Your task to perform on an android device: check the backup settings in the google photos Image 0: 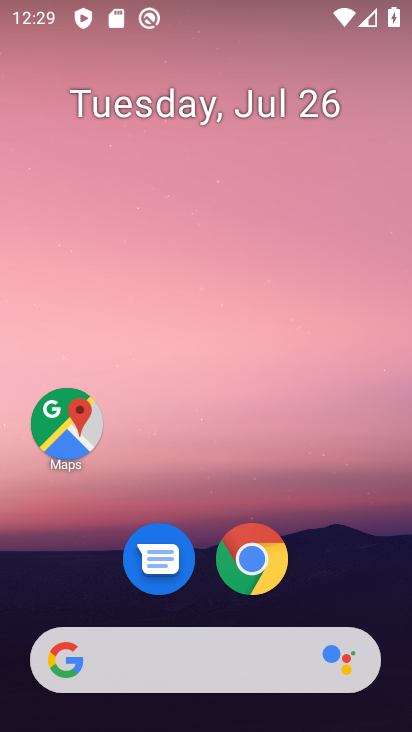
Step 0: drag from (103, 570) to (221, 77)
Your task to perform on an android device: check the backup settings in the google photos Image 1: 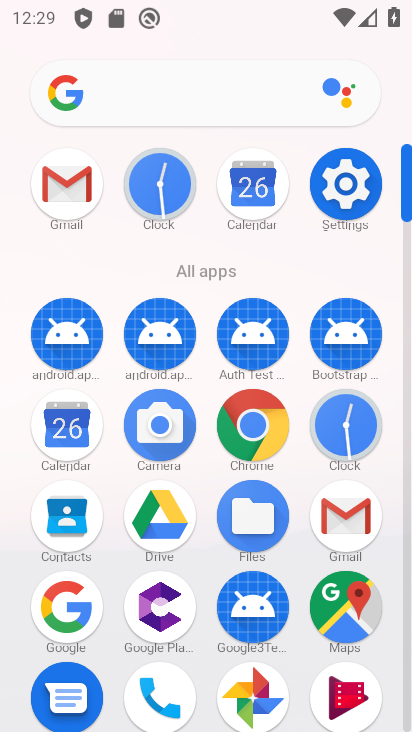
Step 1: click (261, 715)
Your task to perform on an android device: check the backup settings in the google photos Image 2: 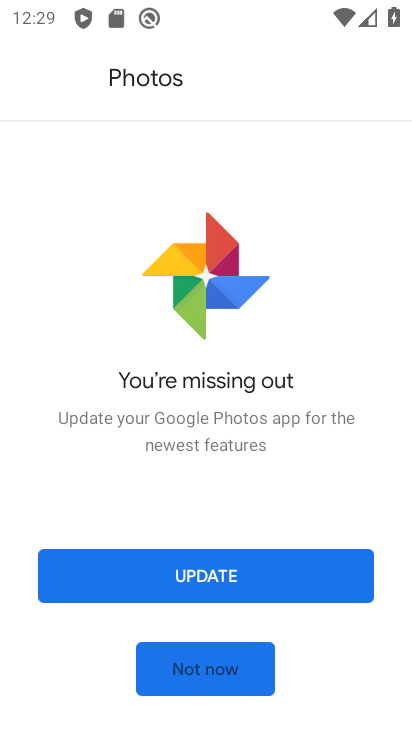
Step 2: click (211, 693)
Your task to perform on an android device: check the backup settings in the google photos Image 3: 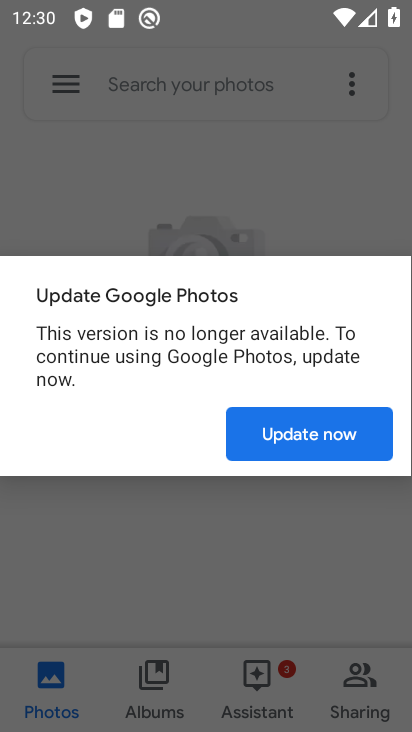
Step 3: click (318, 442)
Your task to perform on an android device: check the backup settings in the google photos Image 4: 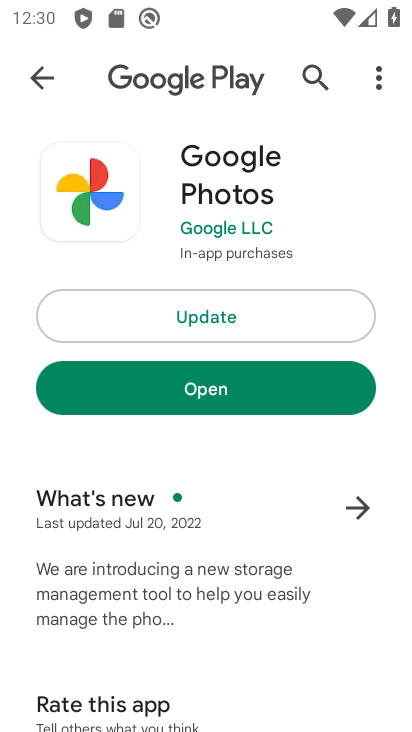
Step 4: click (47, 75)
Your task to perform on an android device: check the backup settings in the google photos Image 5: 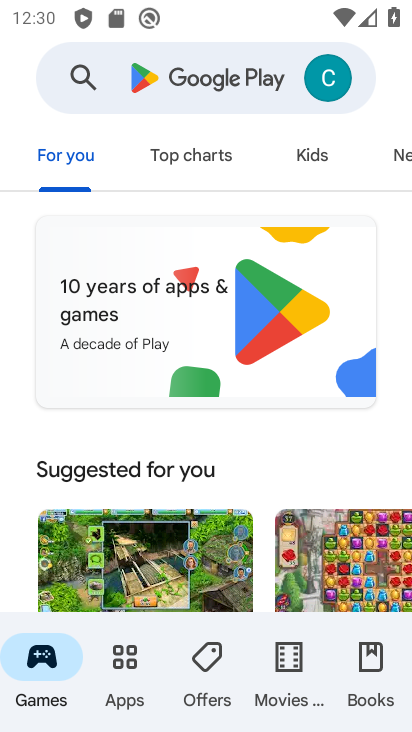
Step 5: press back button
Your task to perform on an android device: check the backup settings in the google photos Image 6: 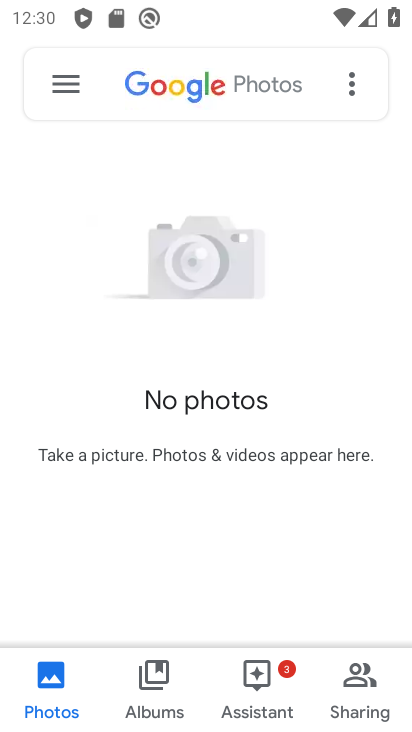
Step 6: click (51, 81)
Your task to perform on an android device: check the backup settings in the google photos Image 7: 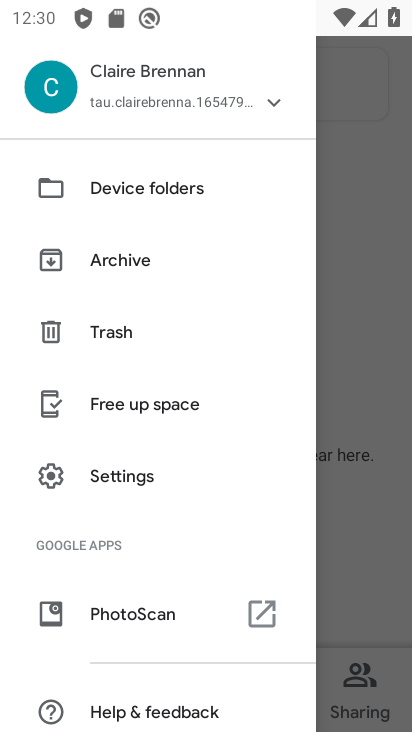
Step 7: click (132, 465)
Your task to perform on an android device: check the backup settings in the google photos Image 8: 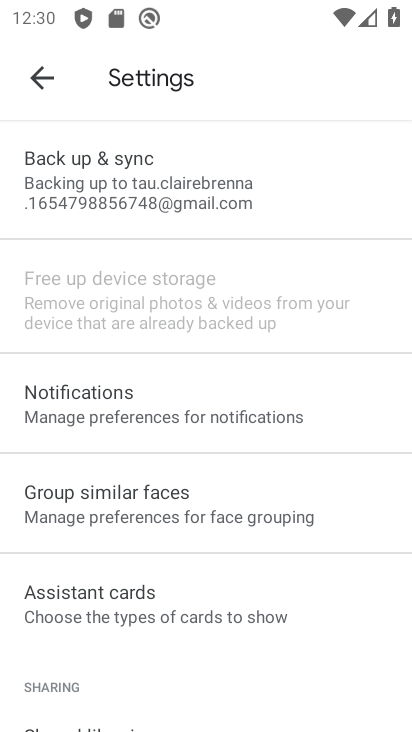
Step 8: click (174, 189)
Your task to perform on an android device: check the backup settings in the google photos Image 9: 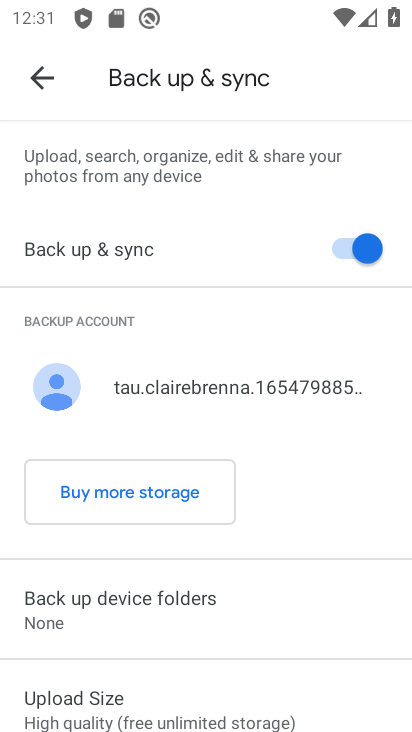
Step 9: task complete